Your task to perform on an android device: Search for pizza restaurants on Maps Image 0: 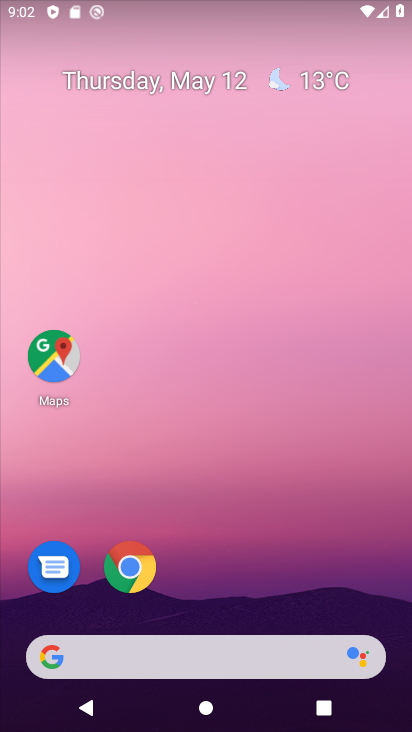
Step 0: drag from (205, 594) to (241, 57)
Your task to perform on an android device: Search for pizza restaurants on Maps Image 1: 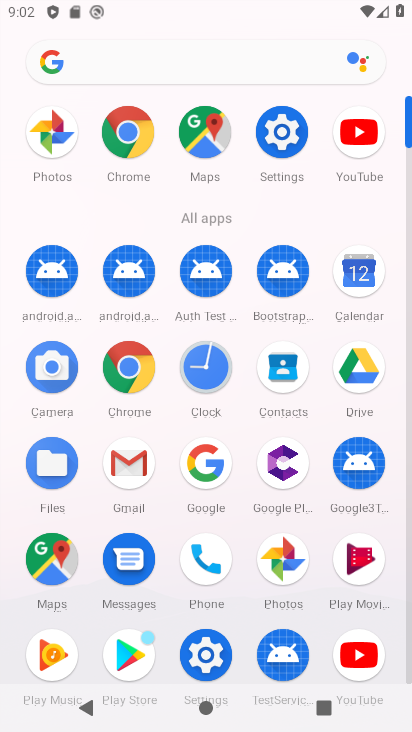
Step 1: click (48, 559)
Your task to perform on an android device: Search for pizza restaurants on Maps Image 2: 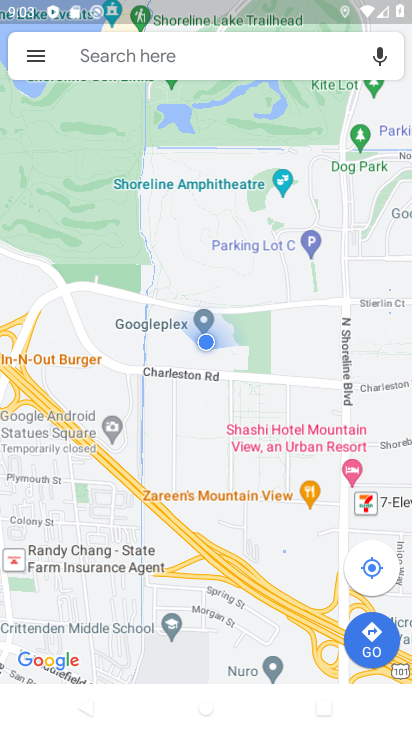
Step 2: click (136, 43)
Your task to perform on an android device: Search for pizza restaurants on Maps Image 3: 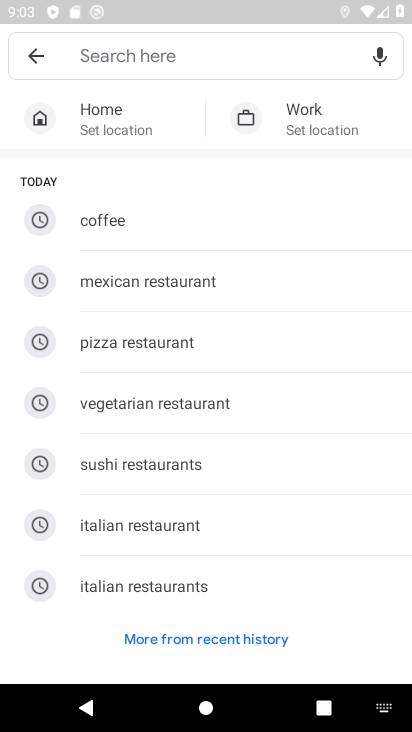
Step 3: click (104, 336)
Your task to perform on an android device: Search for pizza restaurants on Maps Image 4: 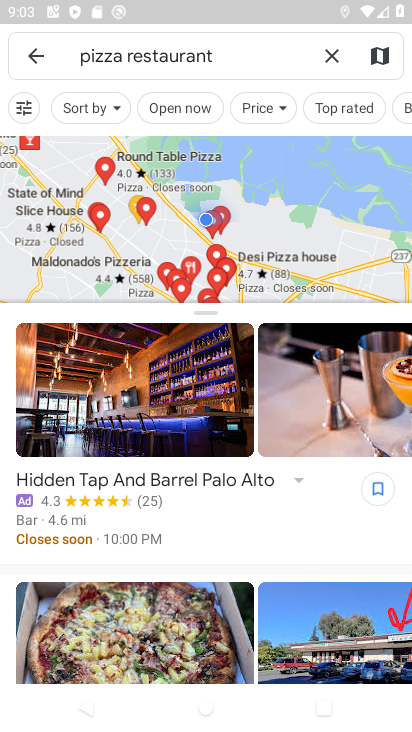
Step 4: task complete